Your task to perform on an android device: change the clock display to analog Image 0: 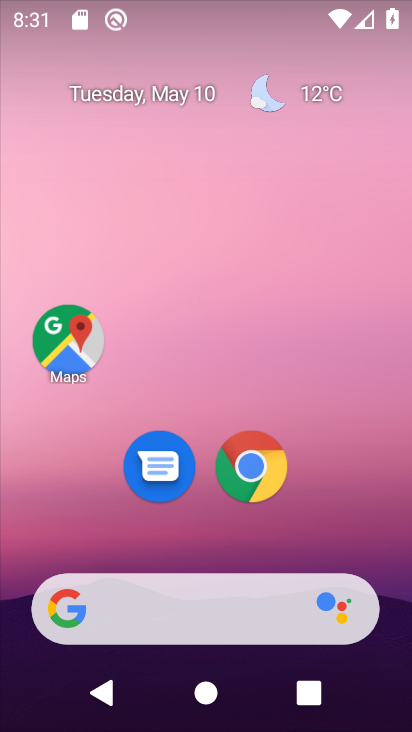
Step 0: drag from (242, 546) to (359, 1)
Your task to perform on an android device: change the clock display to analog Image 1: 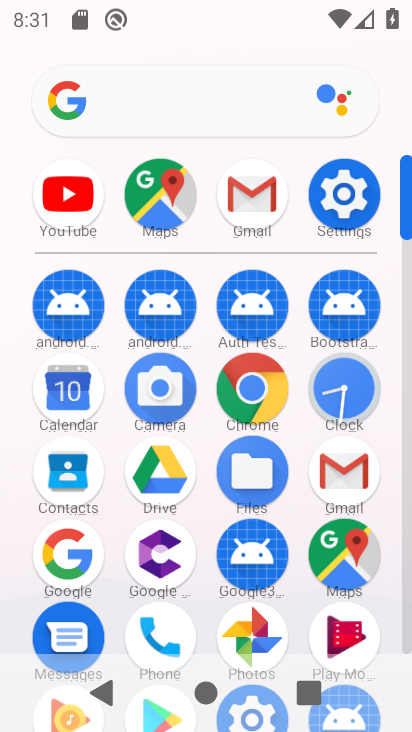
Step 1: click (352, 407)
Your task to perform on an android device: change the clock display to analog Image 2: 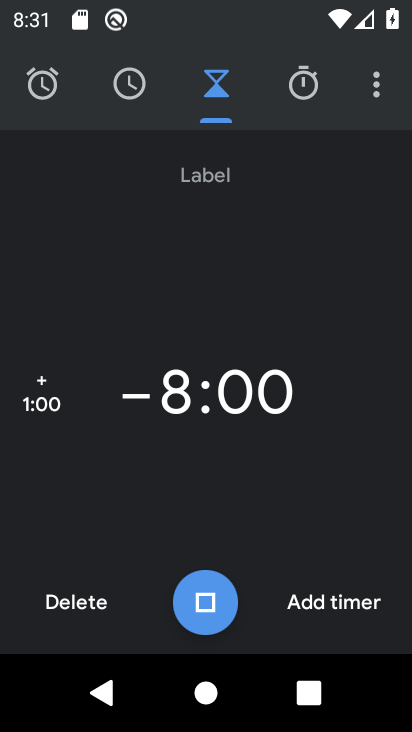
Step 2: click (378, 84)
Your task to perform on an android device: change the clock display to analog Image 3: 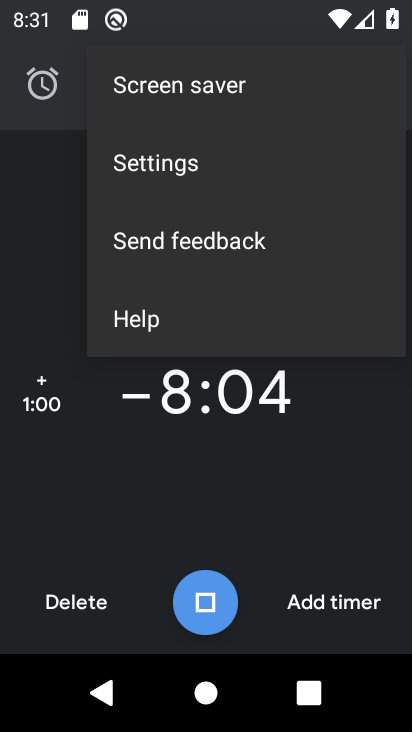
Step 3: click (167, 173)
Your task to perform on an android device: change the clock display to analog Image 4: 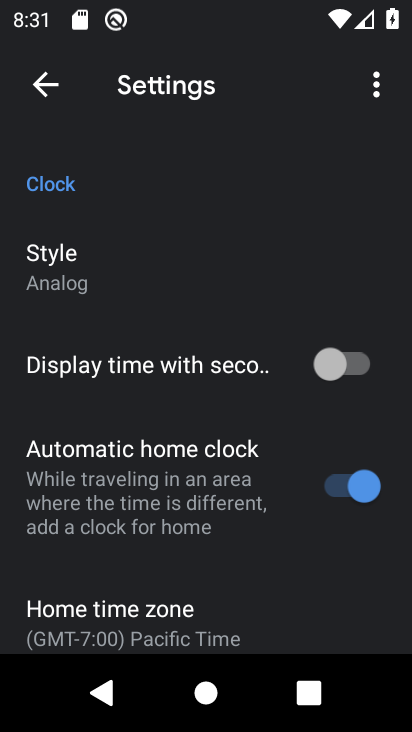
Step 4: task complete